Your task to perform on an android device: Search for acer nitro on bestbuy.com, select the first entry, add it to the cart, then select checkout. Image 0: 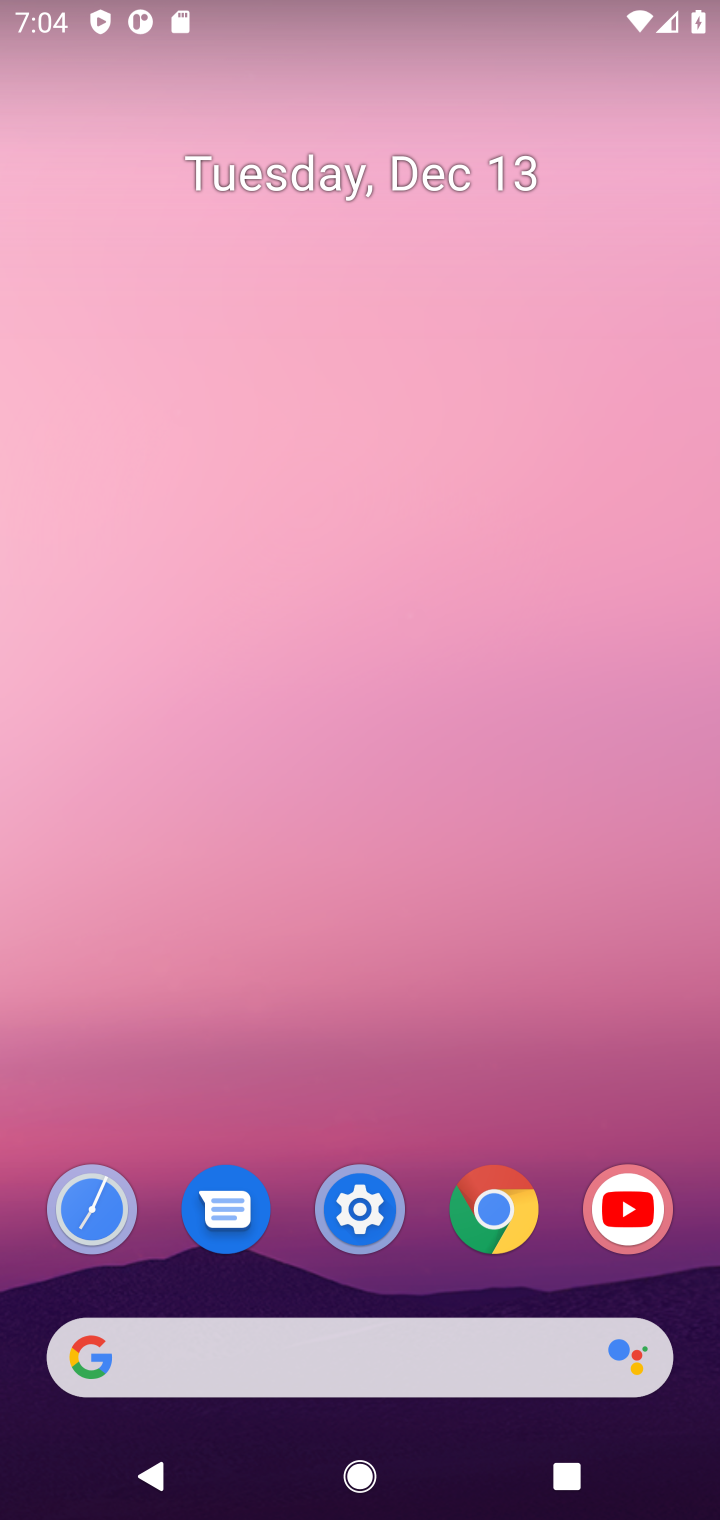
Step 0: click (320, 1307)
Your task to perform on an android device: Search for acer nitro on bestbuy.com, select the first entry, add it to the cart, then select checkout. Image 1: 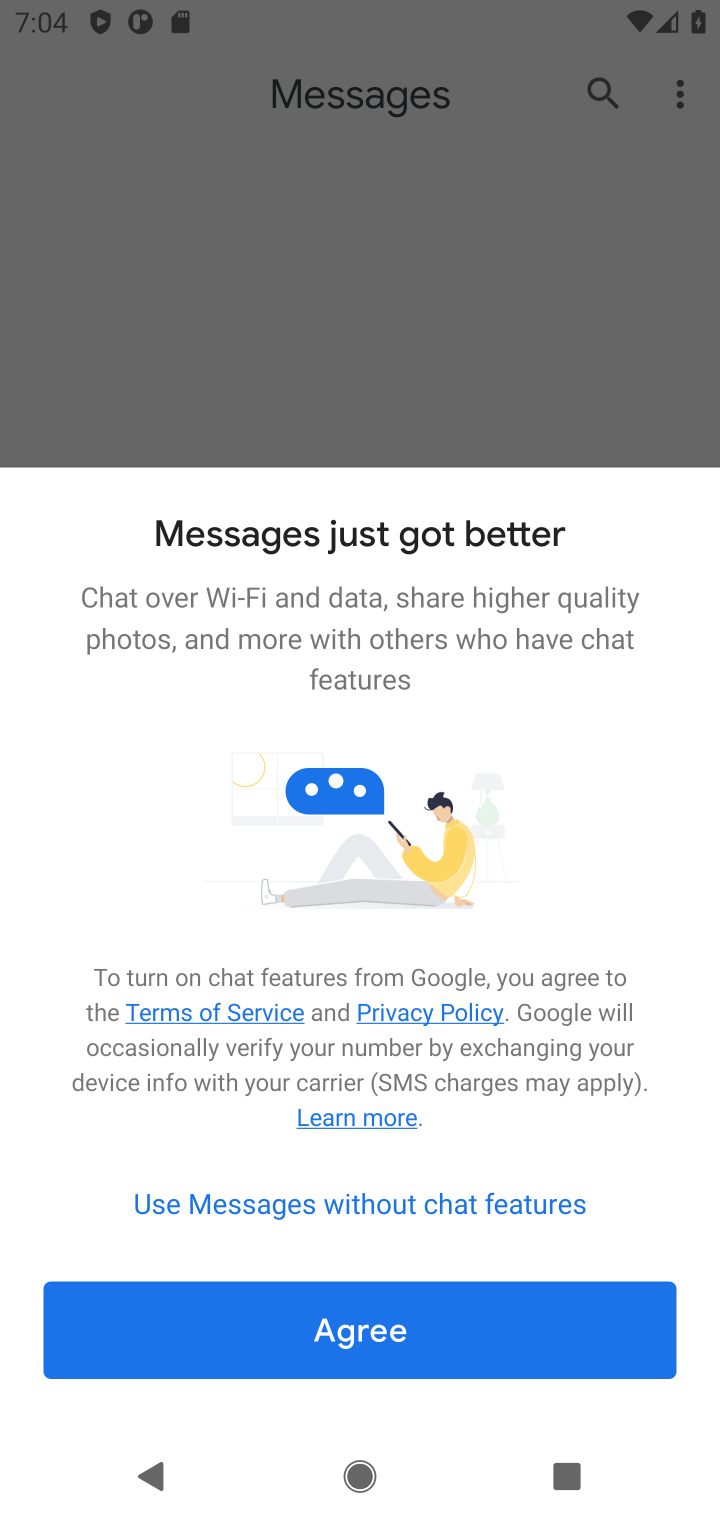
Step 1: press home button
Your task to perform on an android device: Search for acer nitro on bestbuy.com, select the first entry, add it to the cart, then select checkout. Image 2: 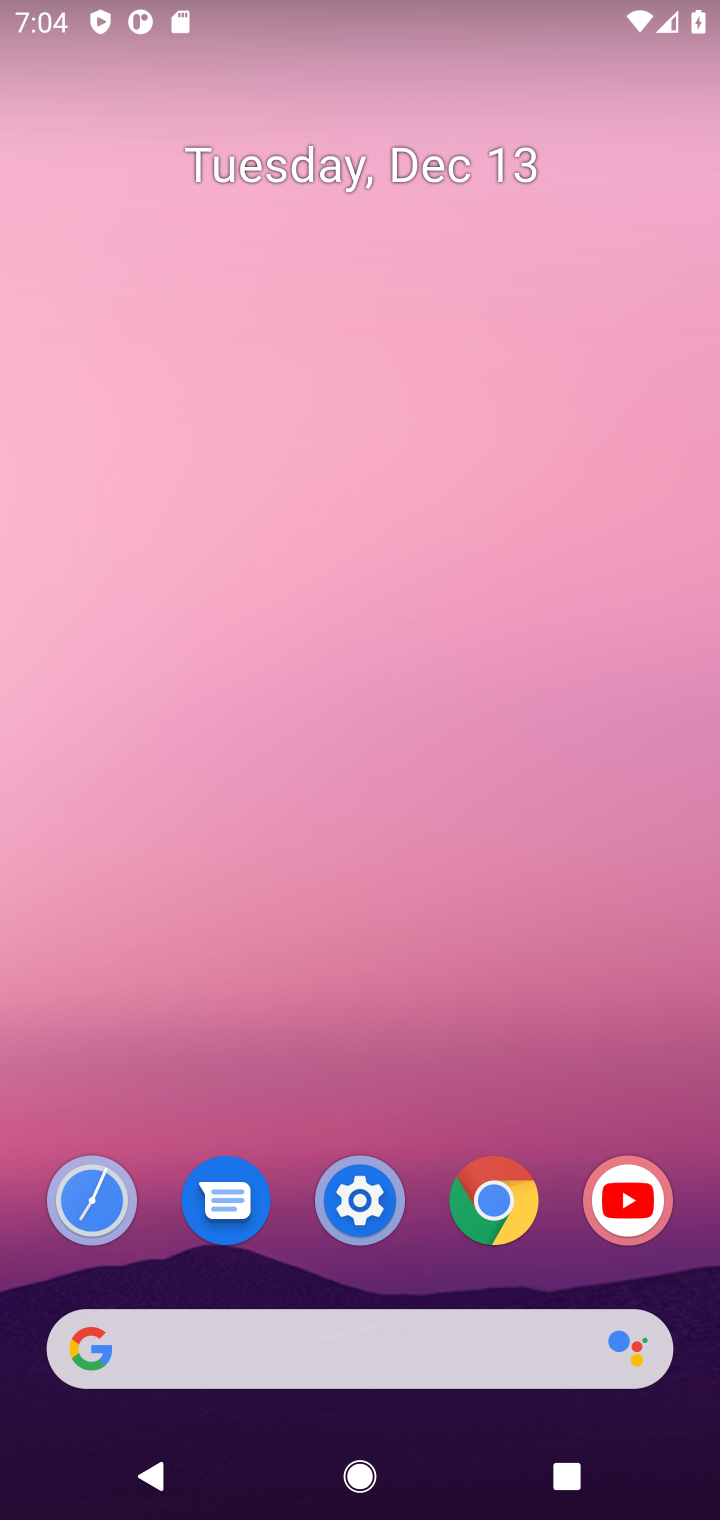
Step 2: click (366, 1355)
Your task to perform on an android device: Search for acer nitro on bestbuy.com, select the first entry, add it to the cart, then select checkout. Image 3: 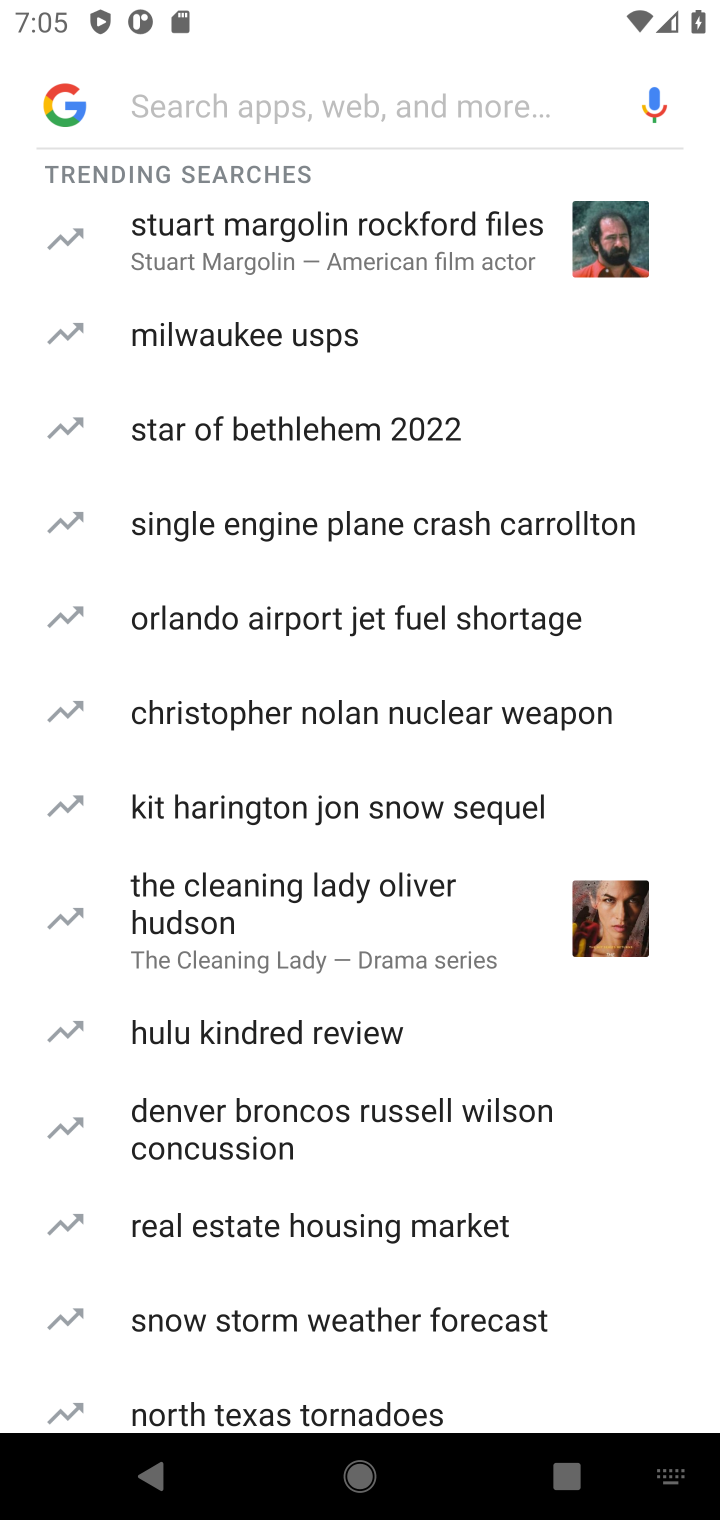
Step 3: type "bestbuy.com"
Your task to perform on an android device: Search for acer nitro on bestbuy.com, select the first entry, add it to the cart, then select checkout. Image 4: 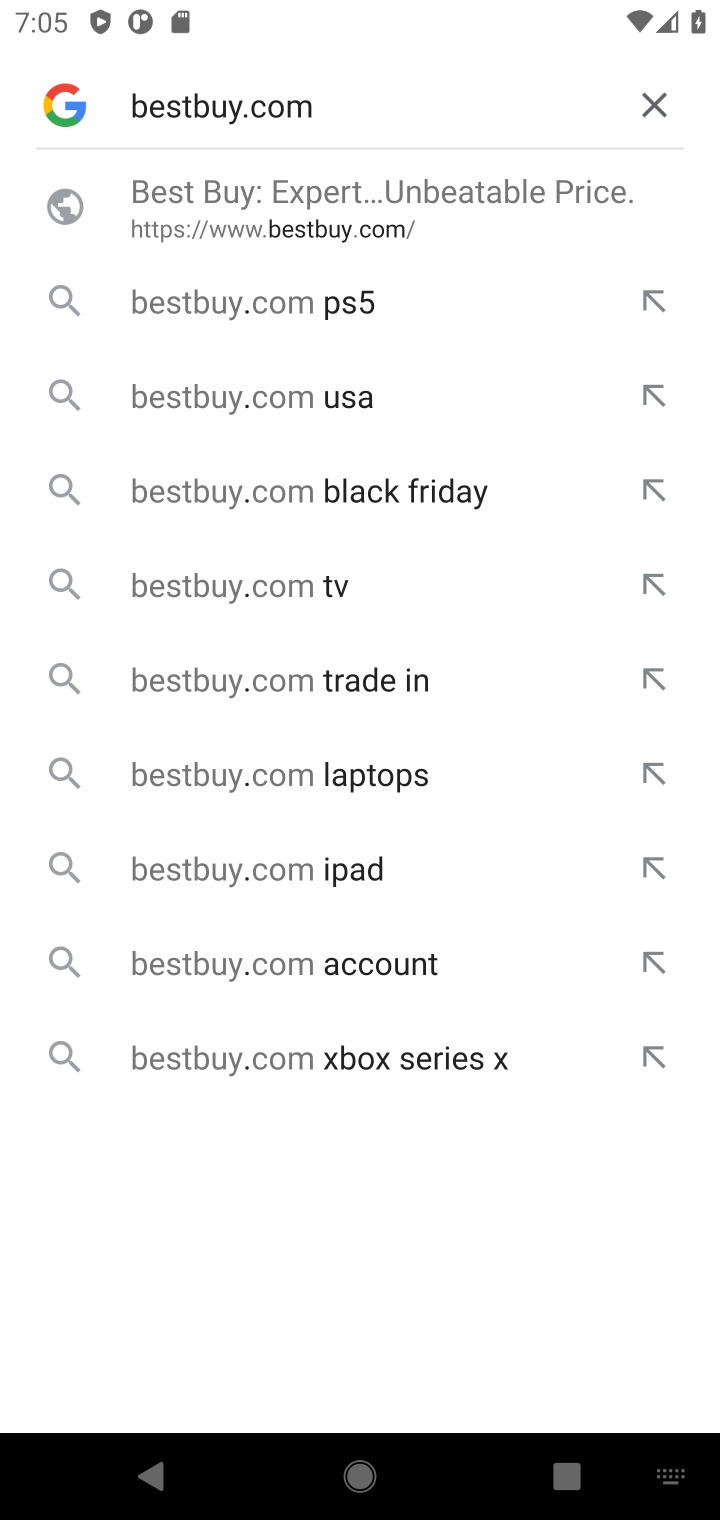
Step 4: click (286, 191)
Your task to perform on an android device: Search for acer nitro on bestbuy.com, select the first entry, add it to the cart, then select checkout. Image 5: 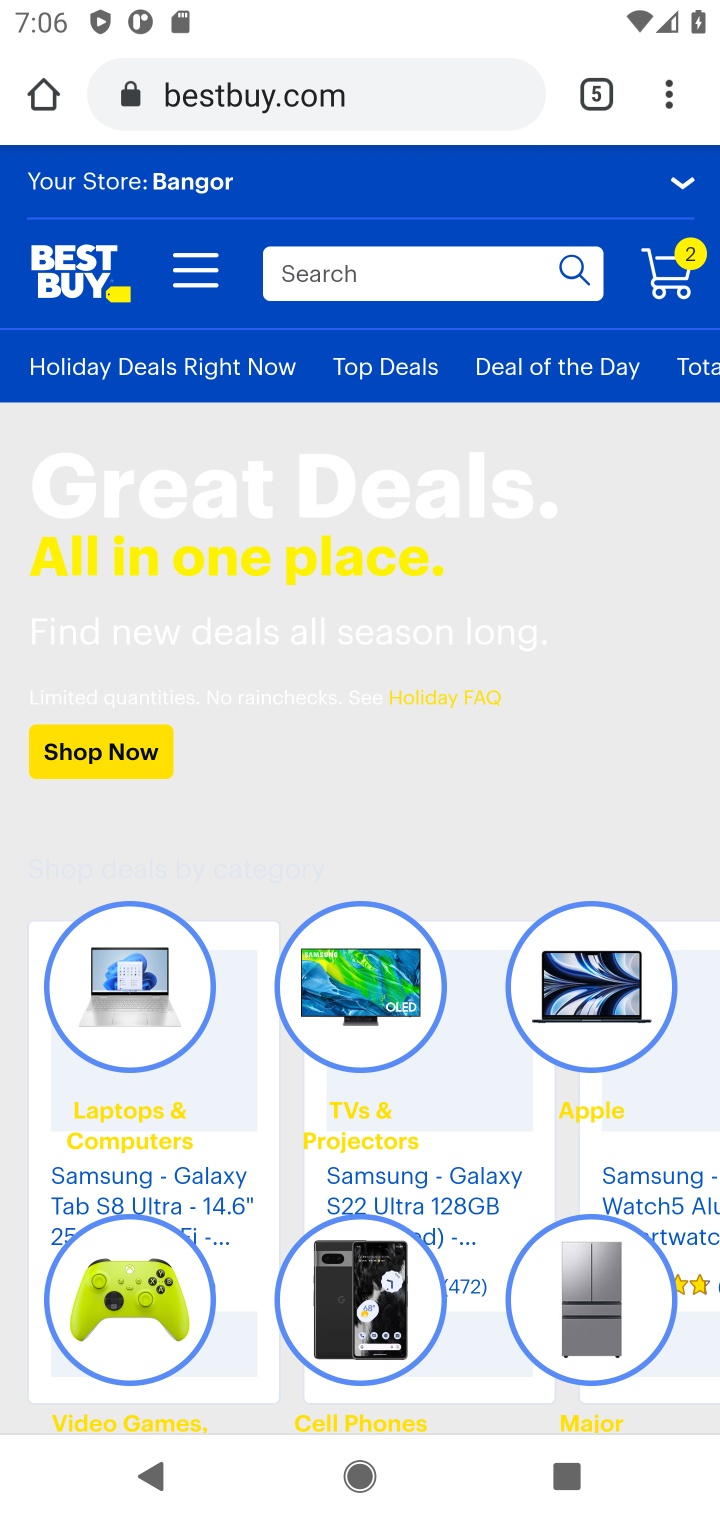
Step 5: click (363, 282)
Your task to perform on an android device: Search for acer nitro on bestbuy.com, select the first entry, add it to the cart, then select checkout. Image 6: 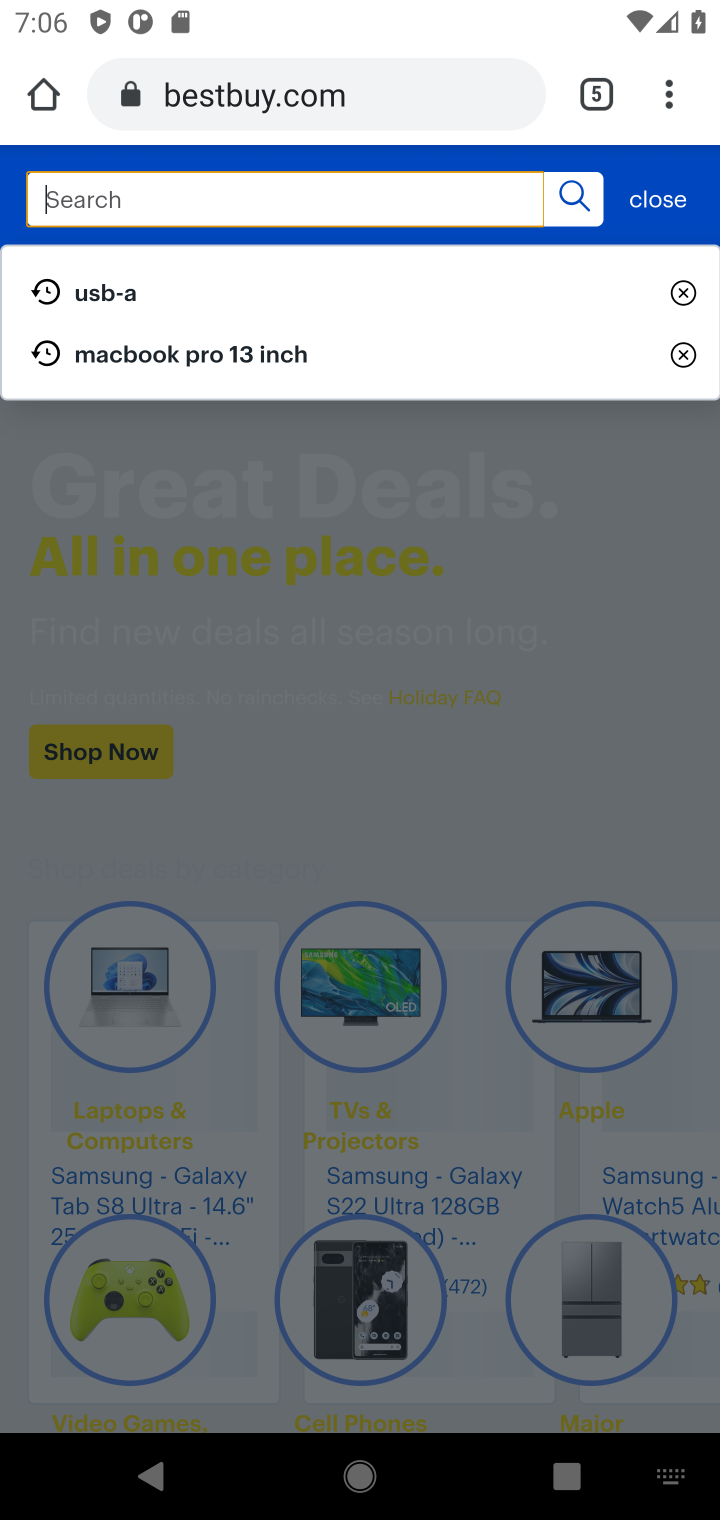
Step 6: type "acer nitro"
Your task to perform on an android device: Search for acer nitro on bestbuy.com, select the first entry, add it to the cart, then select checkout. Image 7: 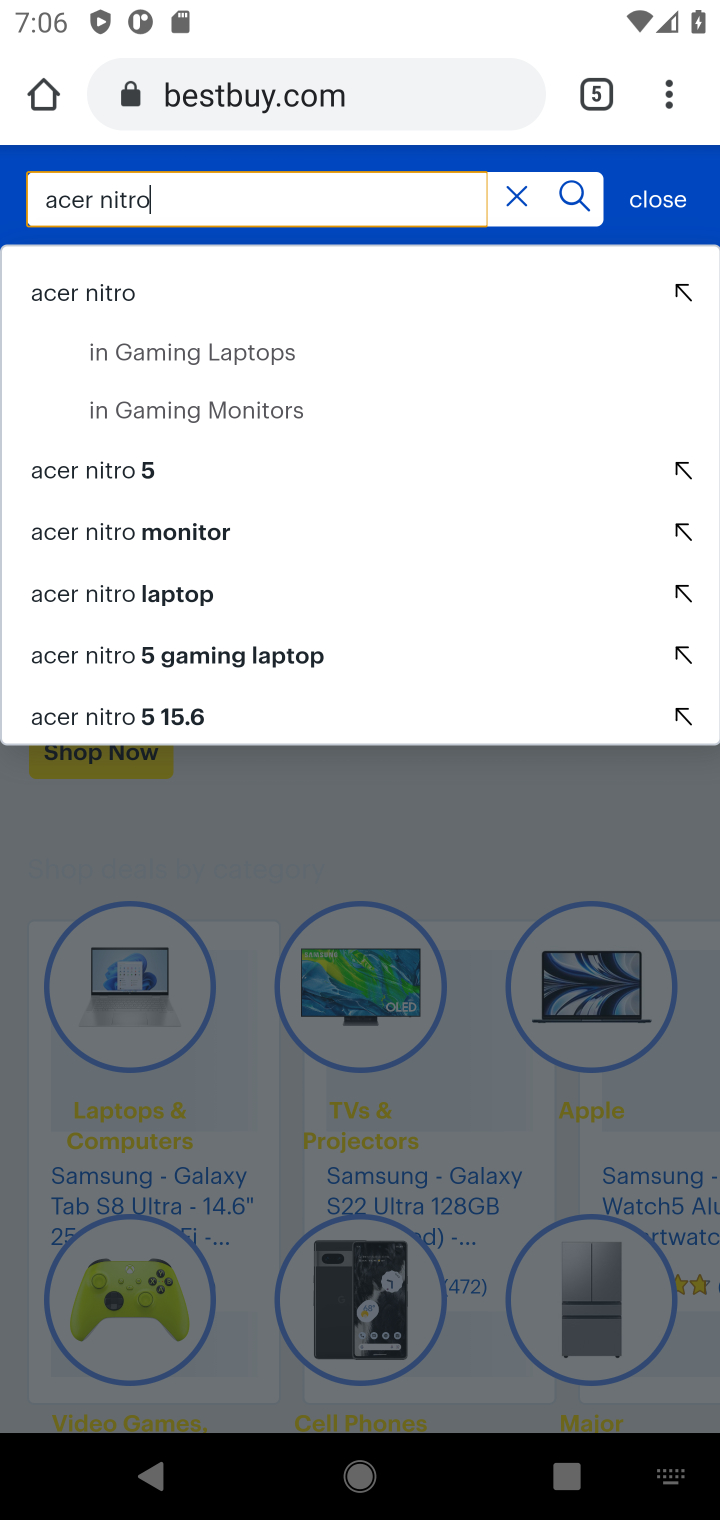
Step 7: click (78, 285)
Your task to perform on an android device: Search for acer nitro on bestbuy.com, select the first entry, add it to the cart, then select checkout. Image 8: 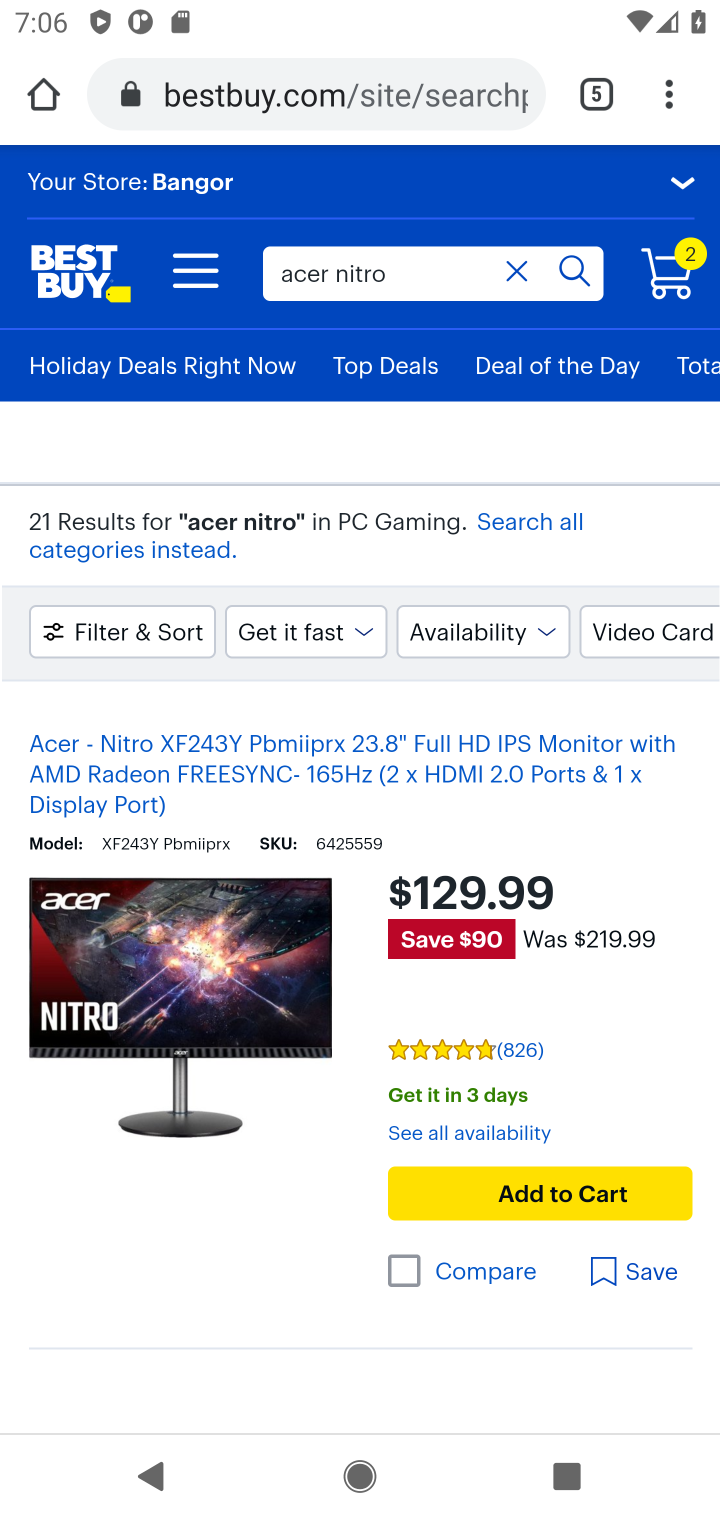
Step 8: click (576, 1132)
Your task to perform on an android device: Search for acer nitro on bestbuy.com, select the first entry, add it to the cart, then select checkout. Image 9: 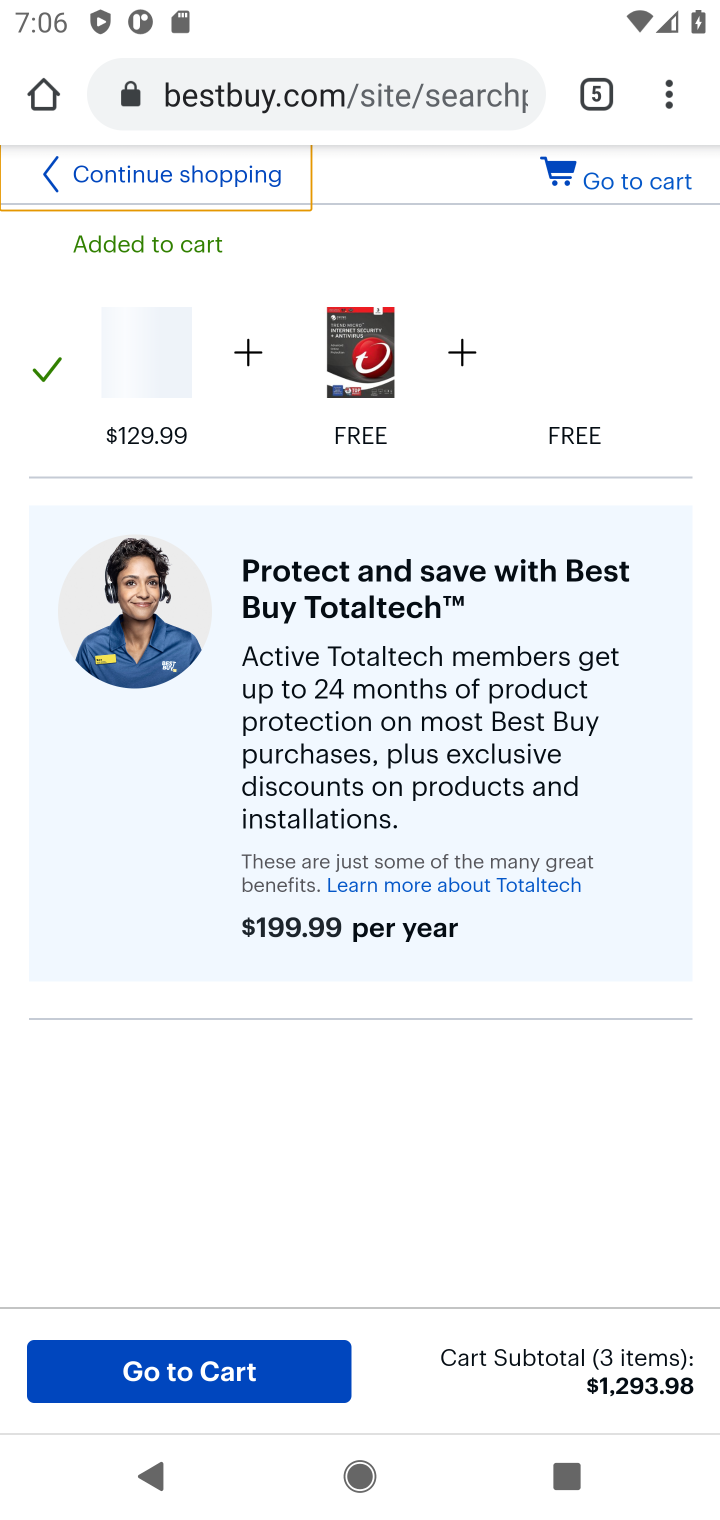
Step 9: click (190, 1368)
Your task to perform on an android device: Search for acer nitro on bestbuy.com, select the first entry, add it to the cart, then select checkout. Image 10: 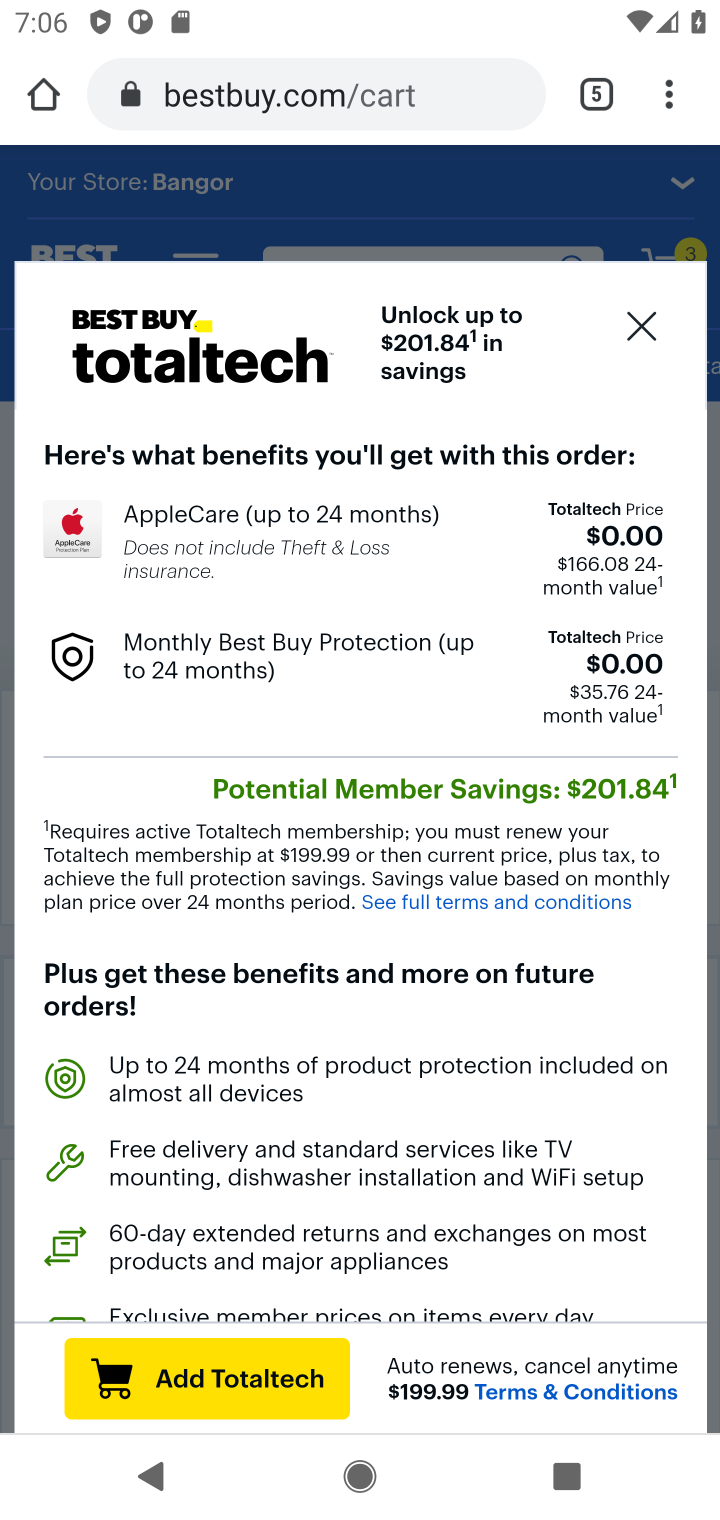
Step 10: click (638, 326)
Your task to perform on an android device: Search for acer nitro on bestbuy.com, select the first entry, add it to the cart, then select checkout. Image 11: 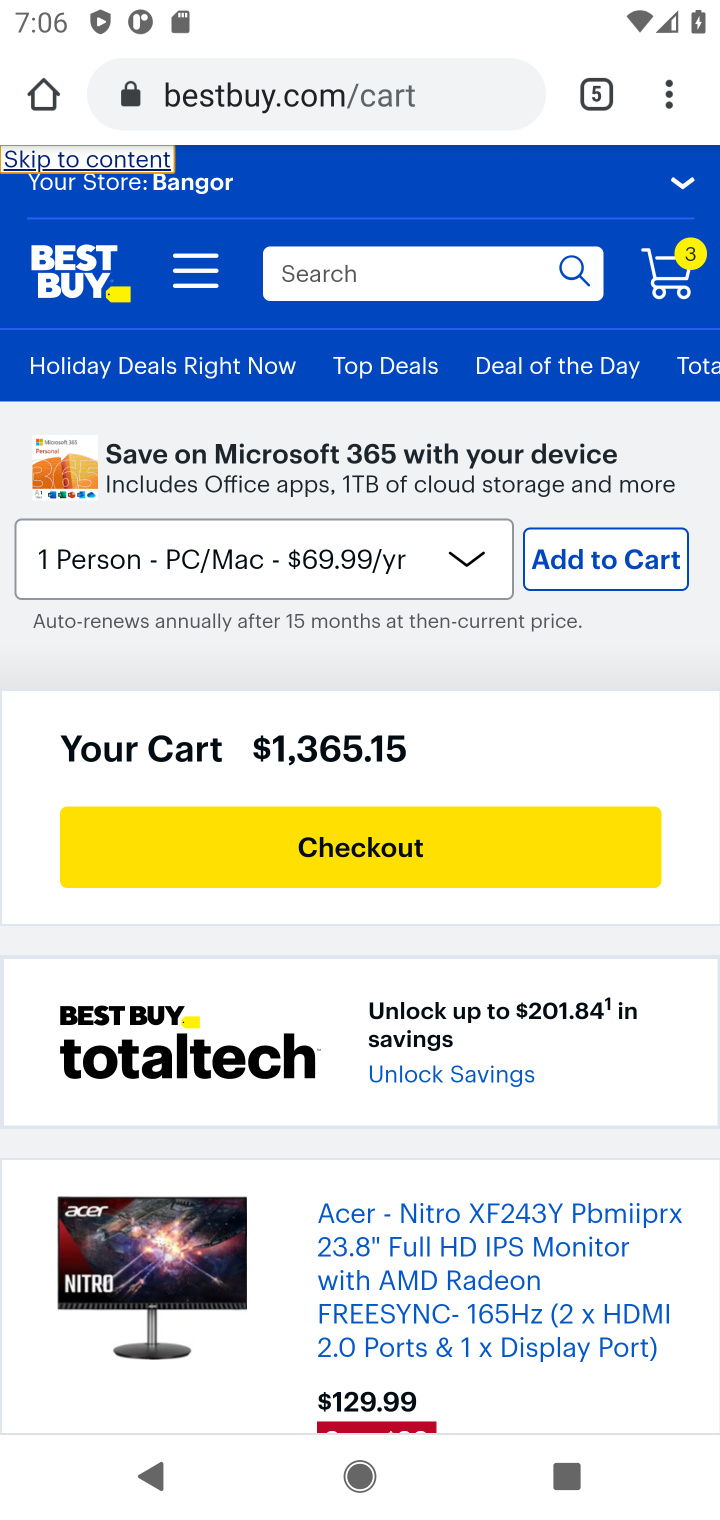
Step 11: click (356, 853)
Your task to perform on an android device: Search for acer nitro on bestbuy.com, select the first entry, add it to the cart, then select checkout. Image 12: 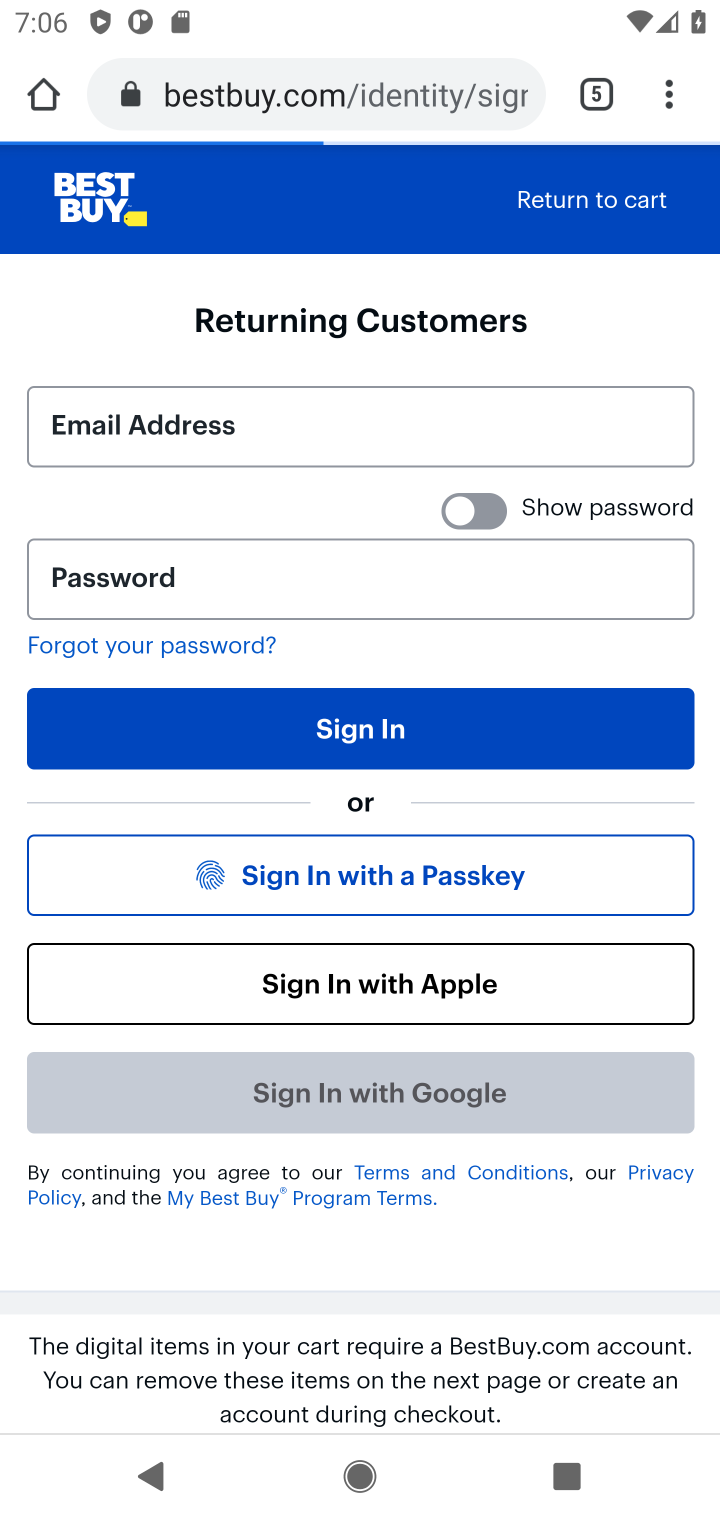
Step 12: task complete